Your task to perform on an android device: uninstall "Google News" Image 0: 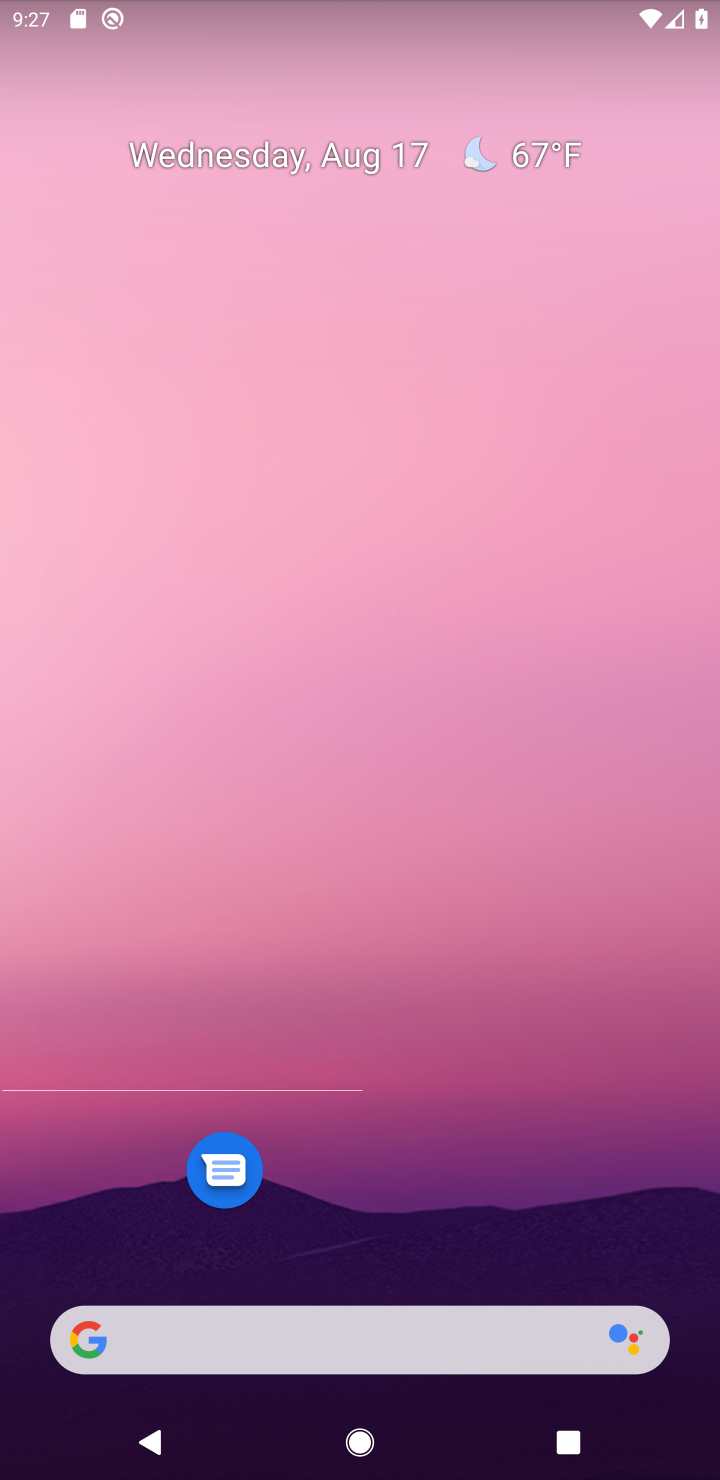
Step 0: press back button
Your task to perform on an android device: uninstall "Google News" Image 1: 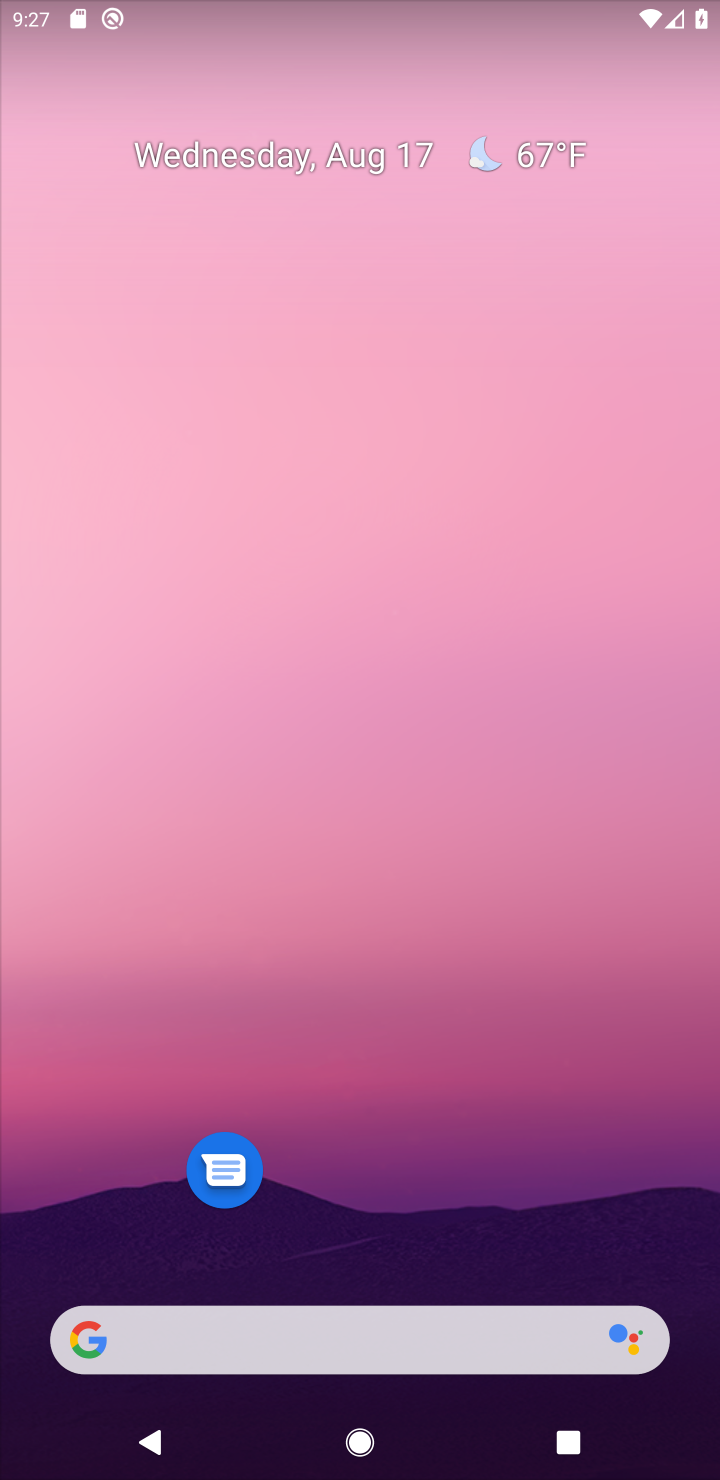
Step 1: drag from (296, 1278) to (134, 308)
Your task to perform on an android device: uninstall "Google News" Image 2: 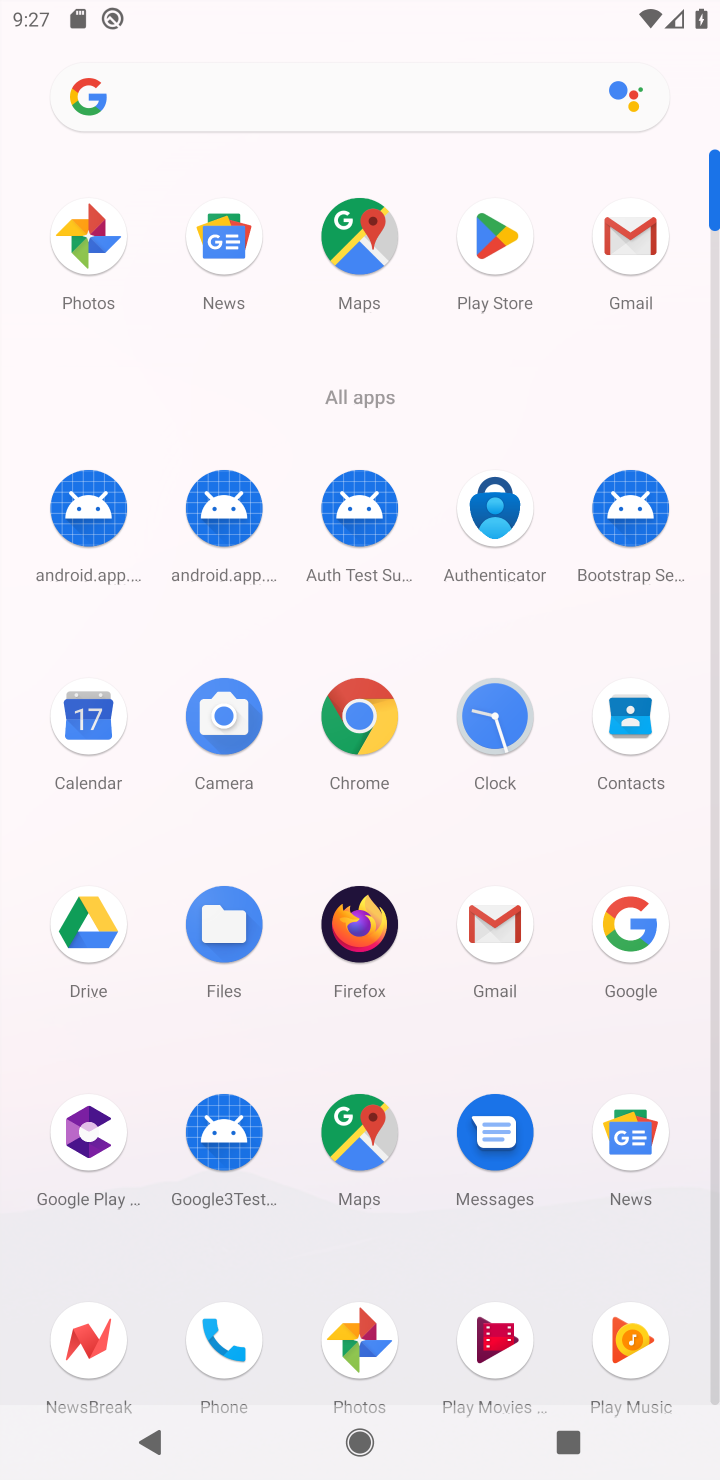
Step 2: click (483, 213)
Your task to perform on an android device: uninstall "Google News" Image 3: 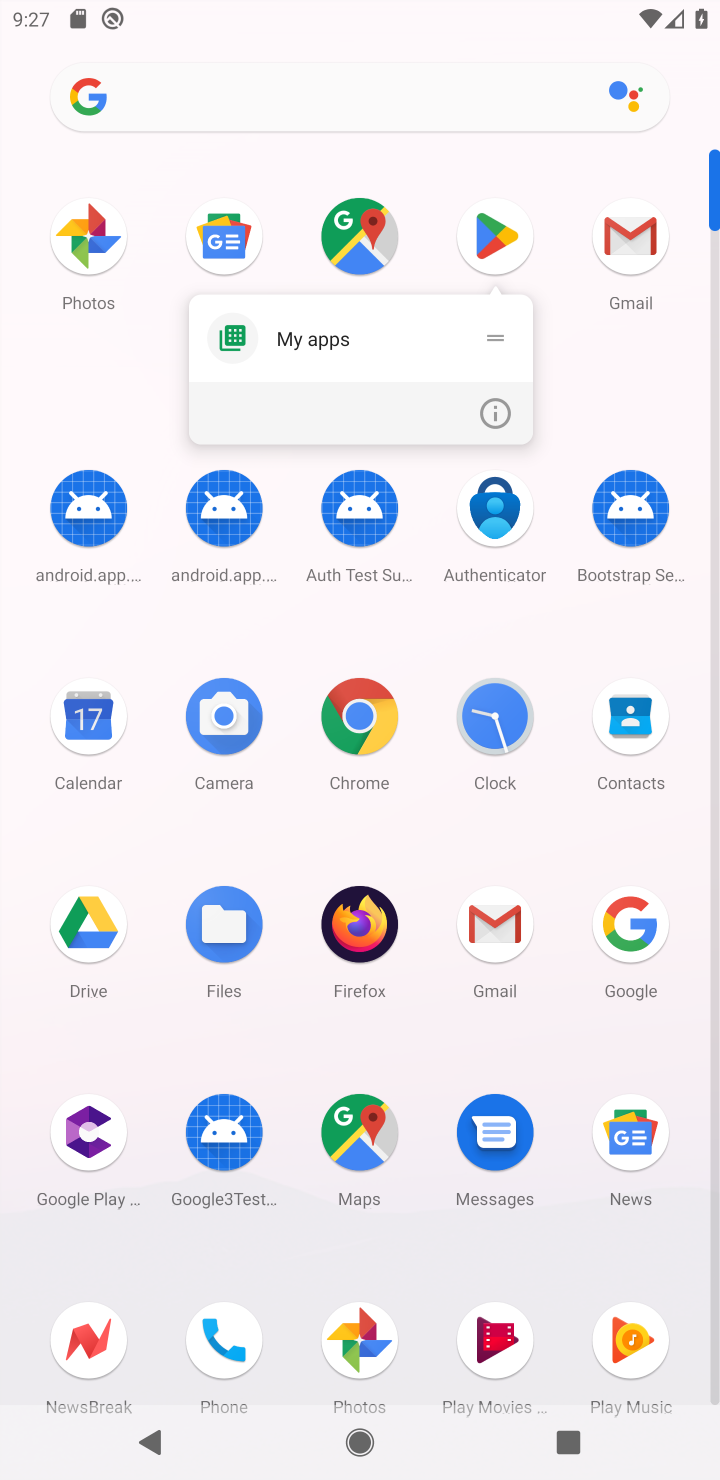
Step 3: click (492, 237)
Your task to perform on an android device: uninstall "Google News" Image 4: 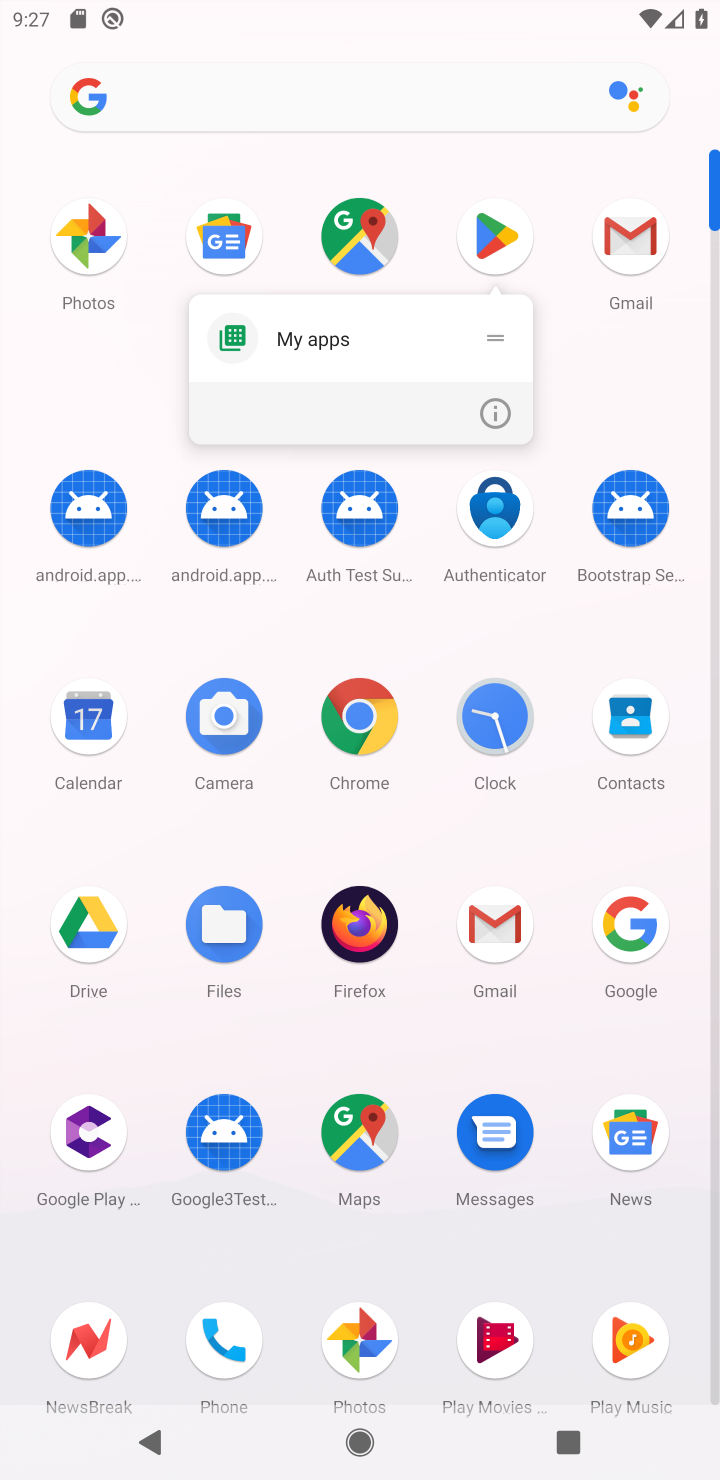
Step 4: click (492, 237)
Your task to perform on an android device: uninstall "Google News" Image 5: 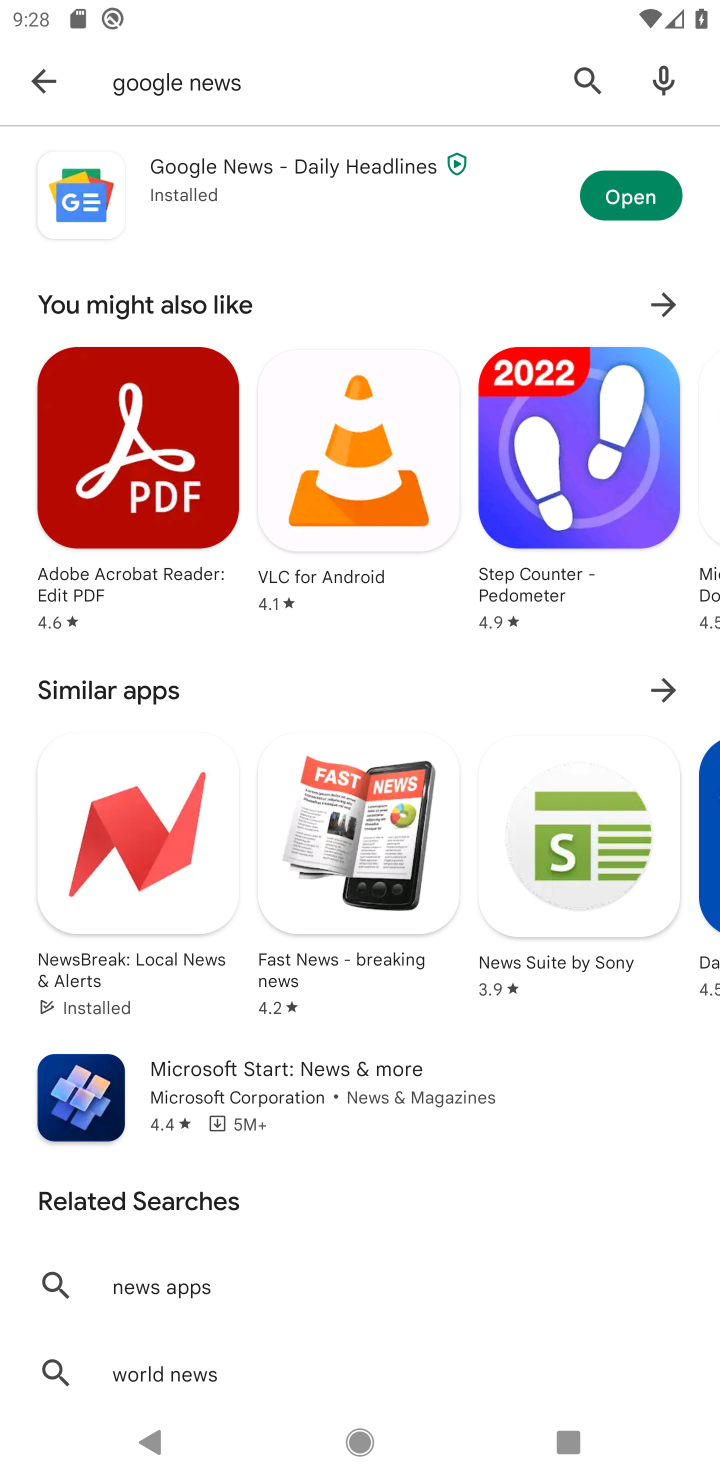
Step 5: click (327, 219)
Your task to perform on an android device: uninstall "Google News" Image 6: 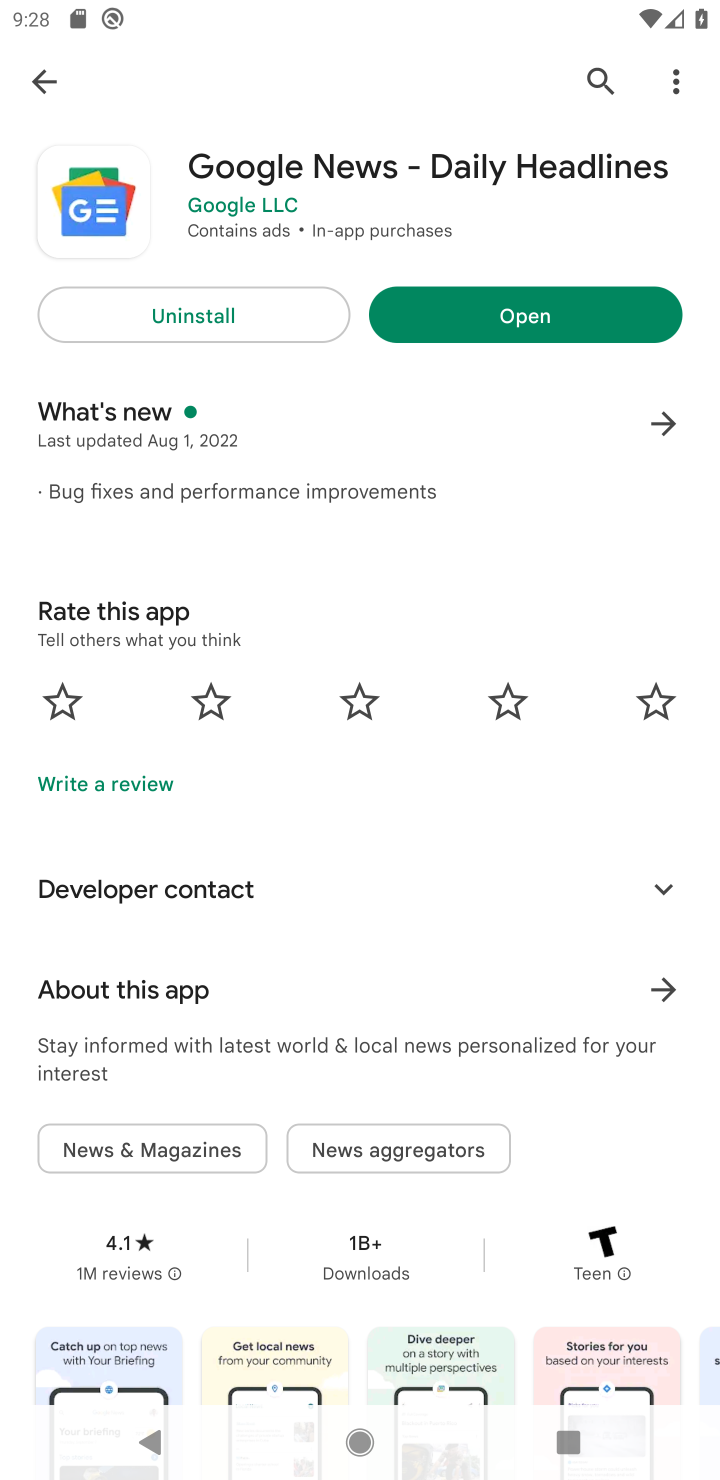
Step 6: click (246, 299)
Your task to perform on an android device: uninstall "Google News" Image 7: 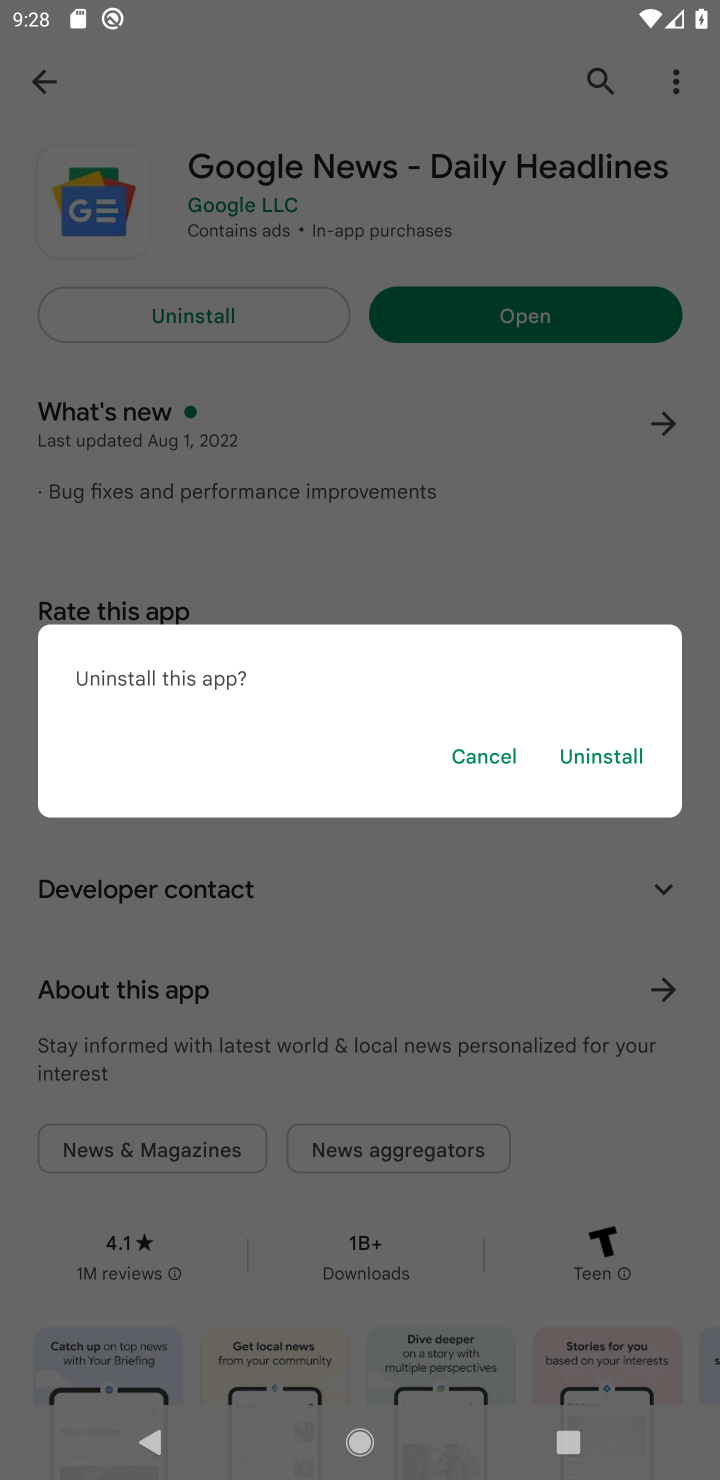
Step 7: click (572, 759)
Your task to perform on an android device: uninstall "Google News" Image 8: 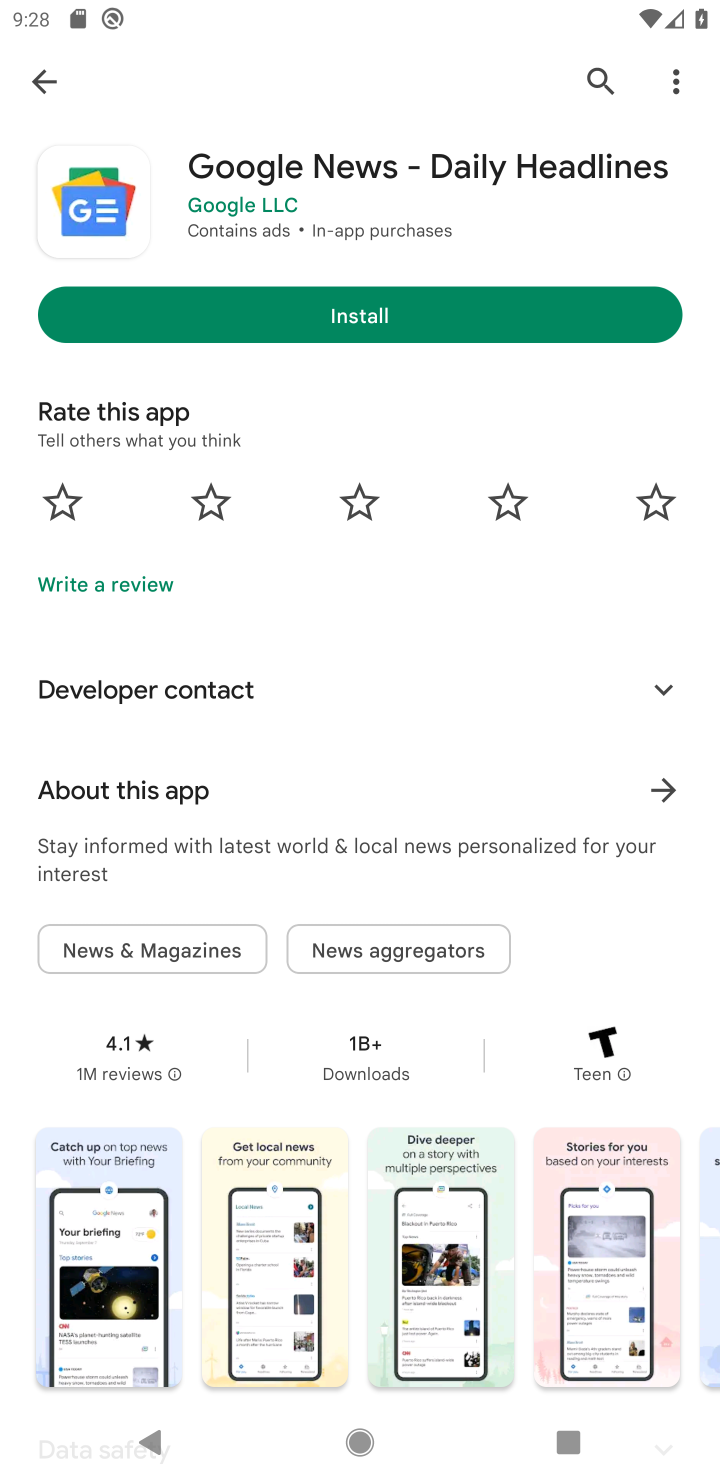
Step 8: task complete